Your task to perform on an android device: Open wifi settings Image 0: 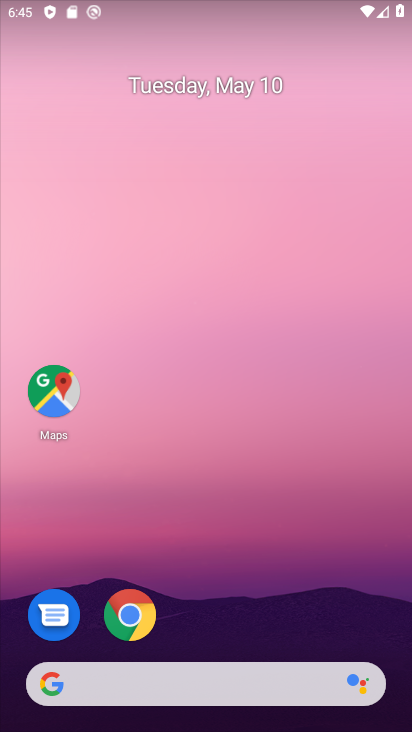
Step 0: drag from (288, 621) to (292, 122)
Your task to perform on an android device: Open wifi settings Image 1: 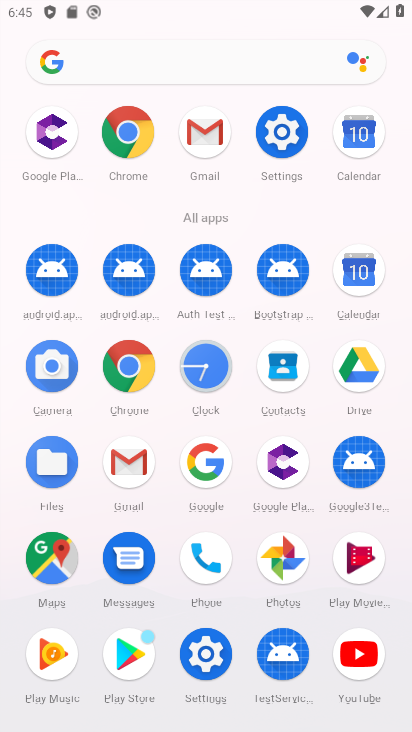
Step 1: click (280, 139)
Your task to perform on an android device: Open wifi settings Image 2: 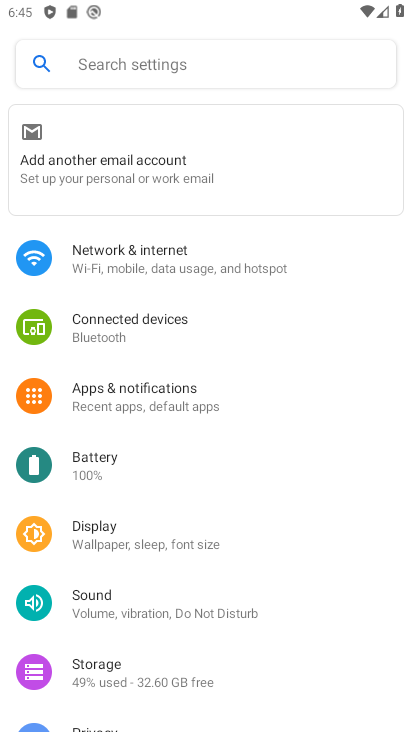
Step 2: click (131, 266)
Your task to perform on an android device: Open wifi settings Image 3: 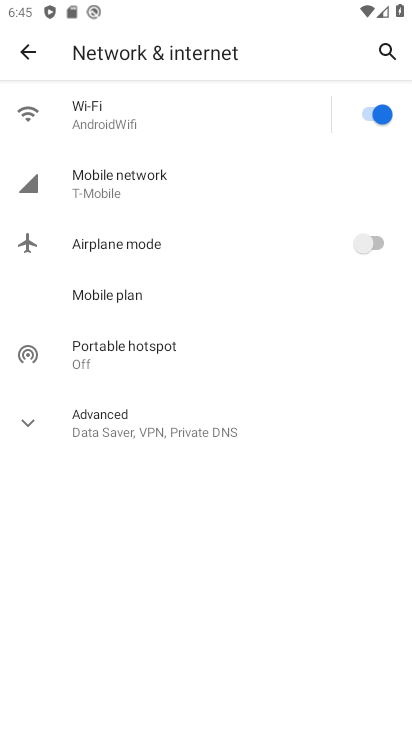
Step 3: click (135, 113)
Your task to perform on an android device: Open wifi settings Image 4: 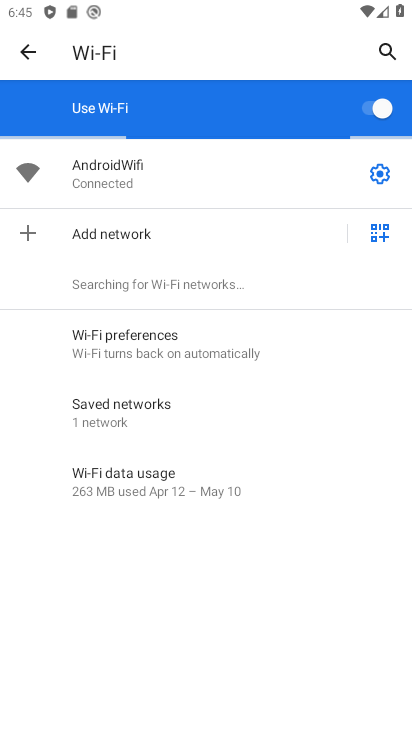
Step 4: task complete